Your task to perform on an android device: Open Google Chrome and click the shortcut for Amazon.com Image 0: 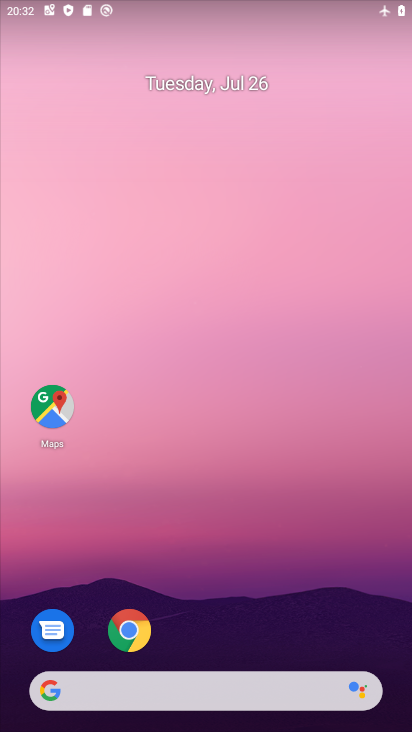
Step 0: click (148, 644)
Your task to perform on an android device: Open Google Chrome and click the shortcut for Amazon.com Image 1: 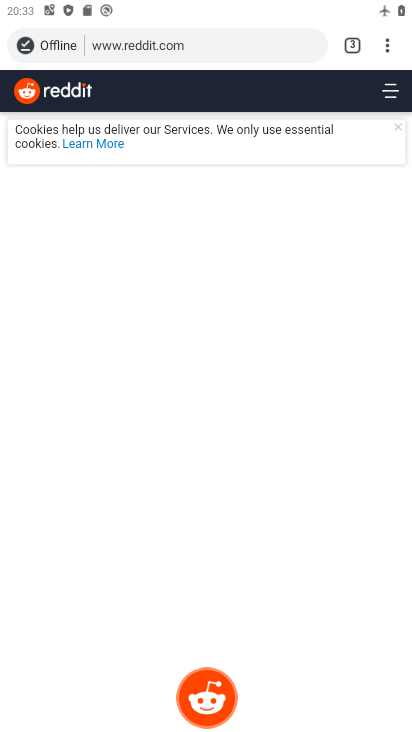
Step 1: click (226, 53)
Your task to perform on an android device: Open Google Chrome and click the shortcut for Amazon.com Image 2: 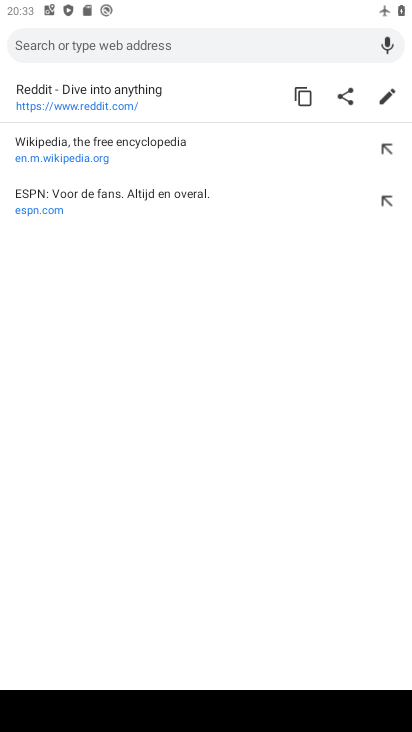
Step 2: type "amazon.com"
Your task to perform on an android device: Open Google Chrome and click the shortcut for Amazon.com Image 3: 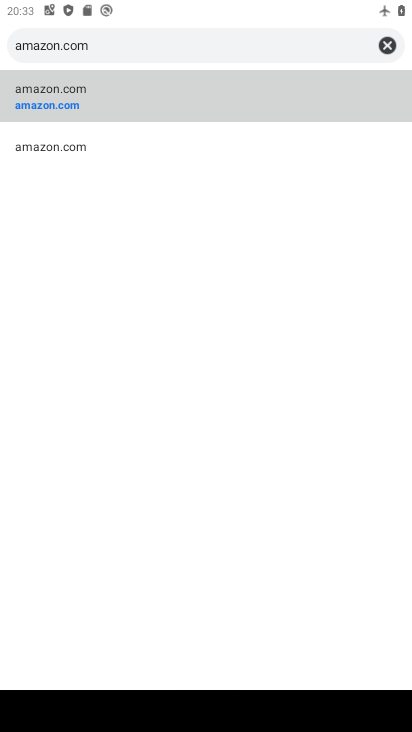
Step 3: click (102, 93)
Your task to perform on an android device: Open Google Chrome and click the shortcut for Amazon.com Image 4: 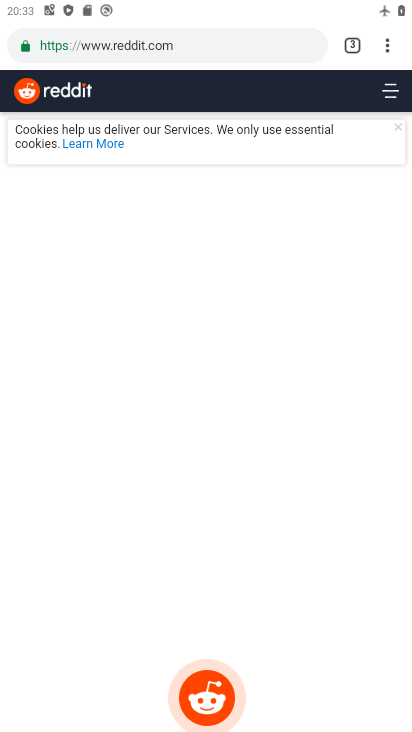
Step 4: task complete